Your task to perform on an android device: Go to internet settings Image 0: 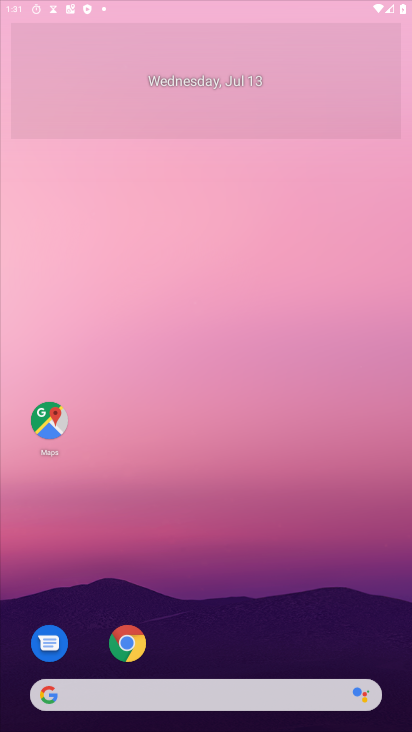
Step 0: press home button
Your task to perform on an android device: Go to internet settings Image 1: 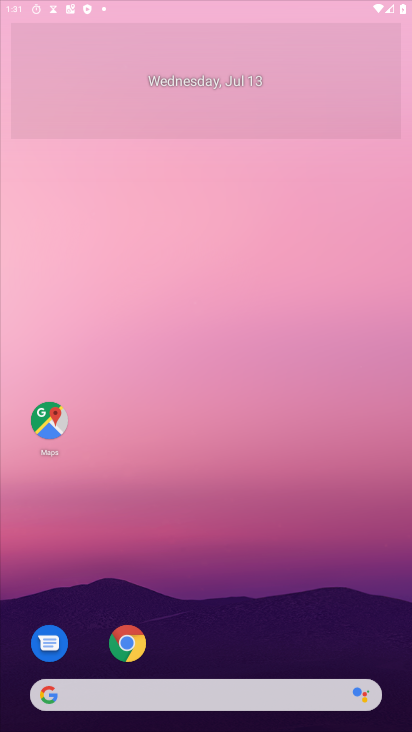
Step 1: click (222, 141)
Your task to perform on an android device: Go to internet settings Image 2: 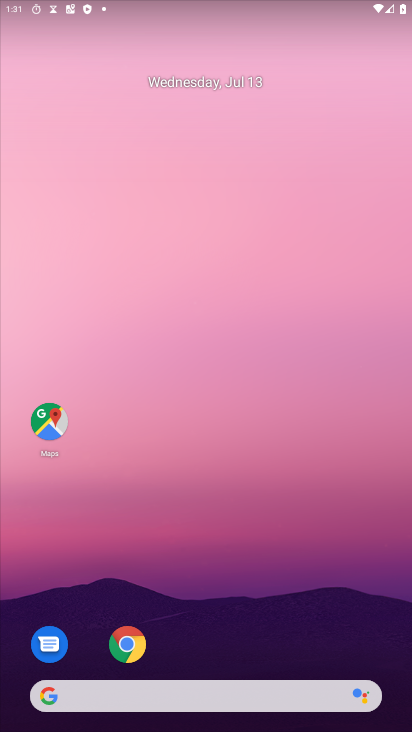
Step 2: drag from (242, 575) to (266, 0)
Your task to perform on an android device: Go to internet settings Image 3: 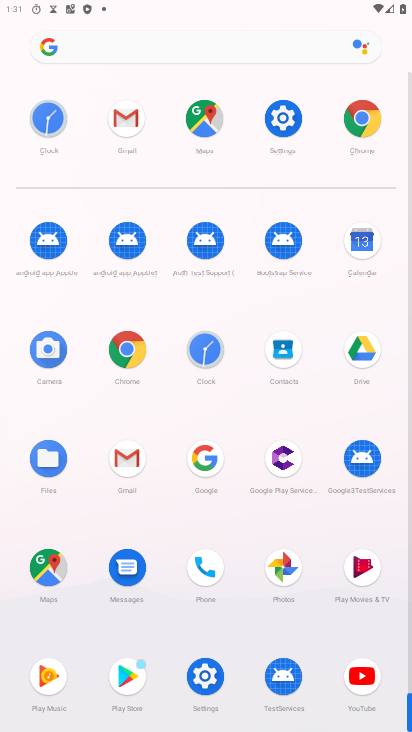
Step 3: click (287, 118)
Your task to perform on an android device: Go to internet settings Image 4: 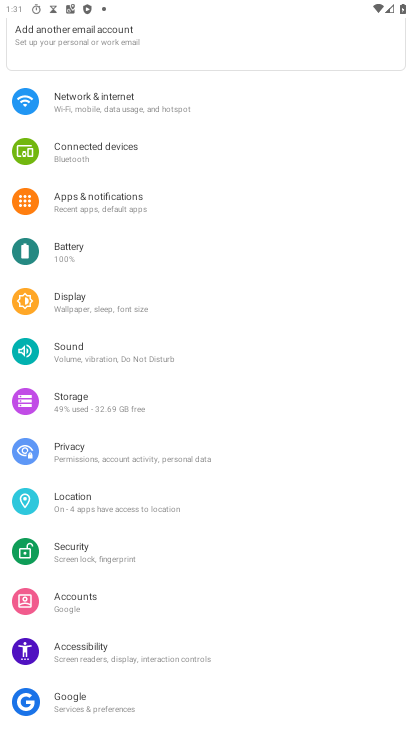
Step 4: click (96, 104)
Your task to perform on an android device: Go to internet settings Image 5: 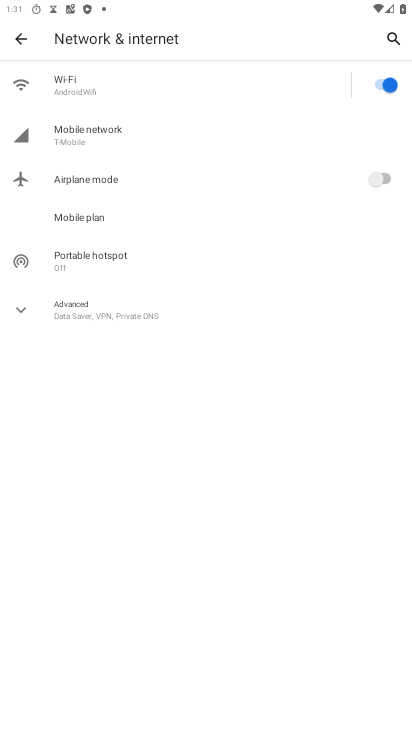
Step 5: task complete